Your task to perform on an android device: add a label to a message in the gmail app Image 0: 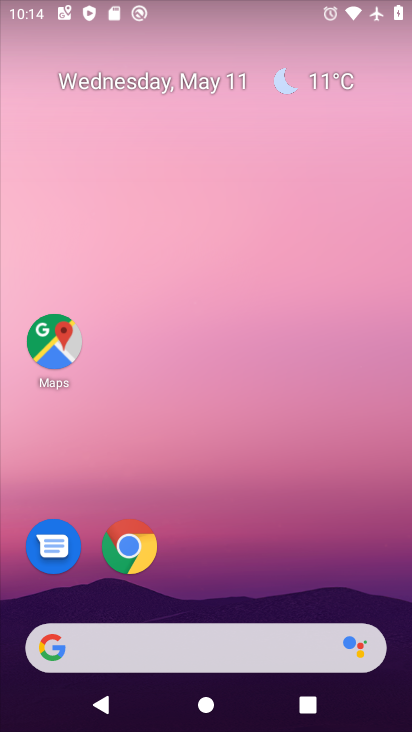
Step 0: drag from (399, 641) to (261, 82)
Your task to perform on an android device: add a label to a message in the gmail app Image 1: 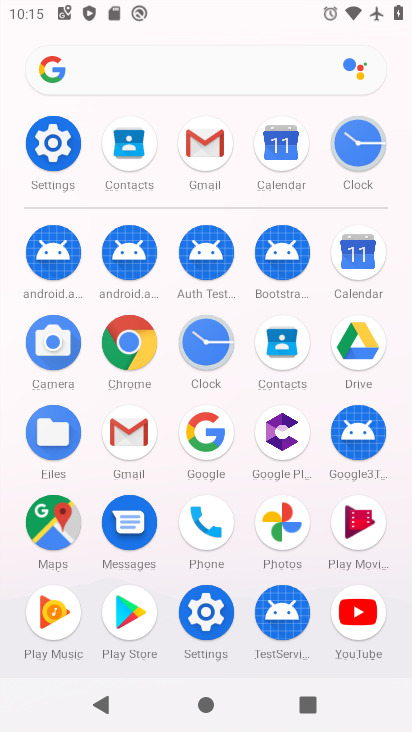
Step 1: click (124, 429)
Your task to perform on an android device: add a label to a message in the gmail app Image 2: 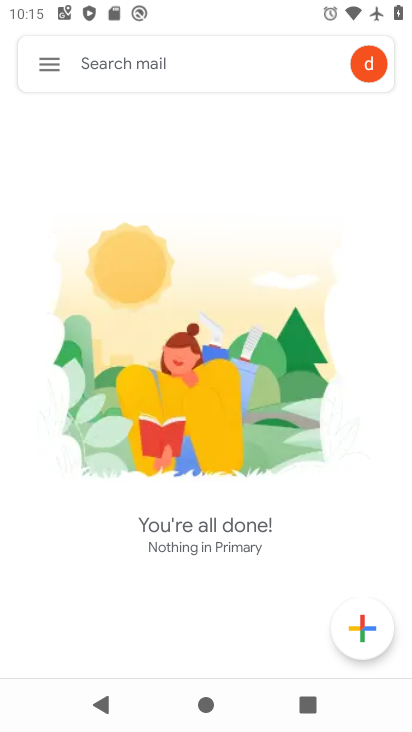
Step 2: click (48, 58)
Your task to perform on an android device: add a label to a message in the gmail app Image 3: 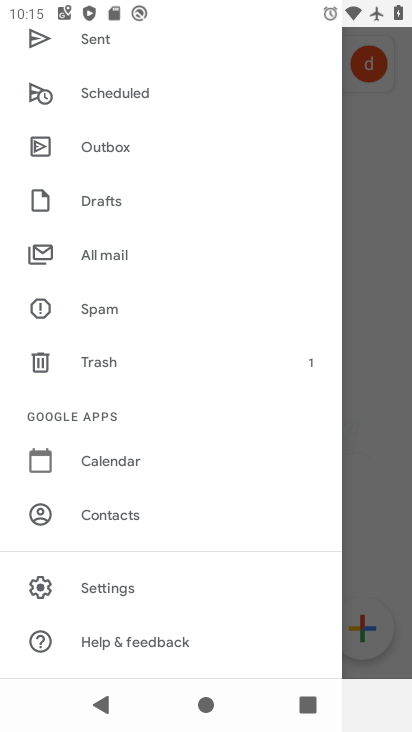
Step 3: click (107, 254)
Your task to perform on an android device: add a label to a message in the gmail app Image 4: 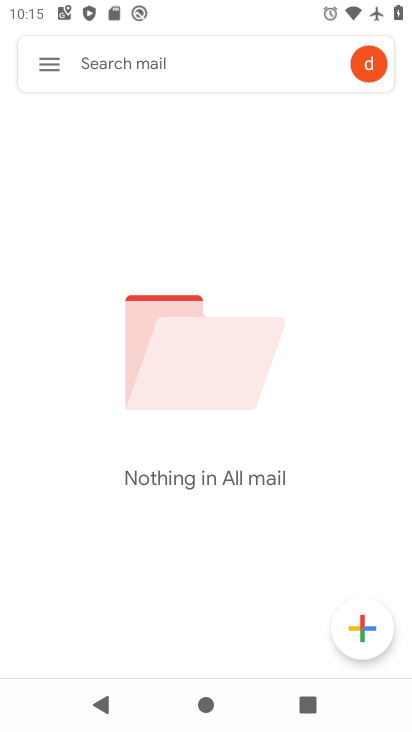
Step 4: task complete